Your task to perform on an android device: open the mobile data screen to see how much data has been used Image 0: 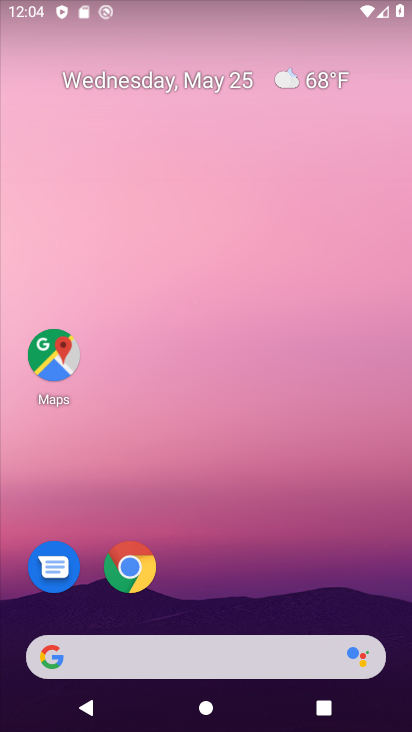
Step 0: drag from (182, 615) to (278, 165)
Your task to perform on an android device: open the mobile data screen to see how much data has been used Image 1: 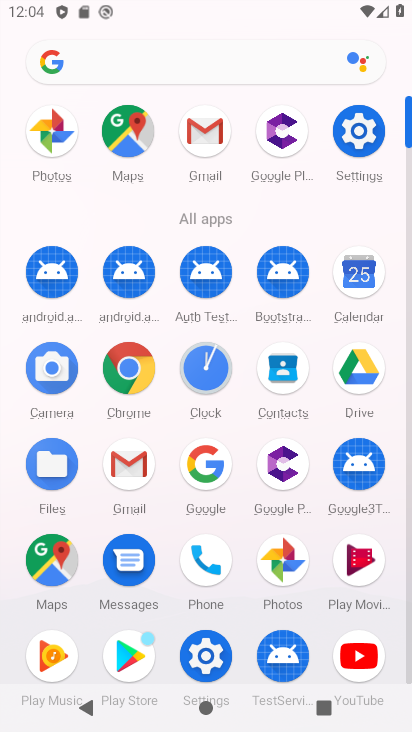
Step 1: click (205, 665)
Your task to perform on an android device: open the mobile data screen to see how much data has been used Image 2: 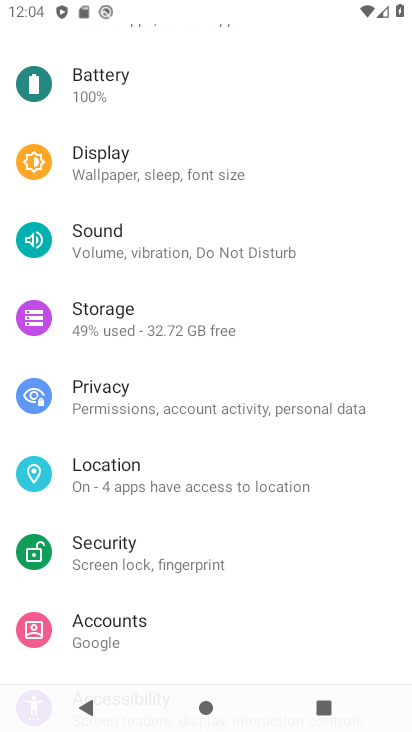
Step 2: drag from (207, 95) to (196, 685)
Your task to perform on an android device: open the mobile data screen to see how much data has been used Image 3: 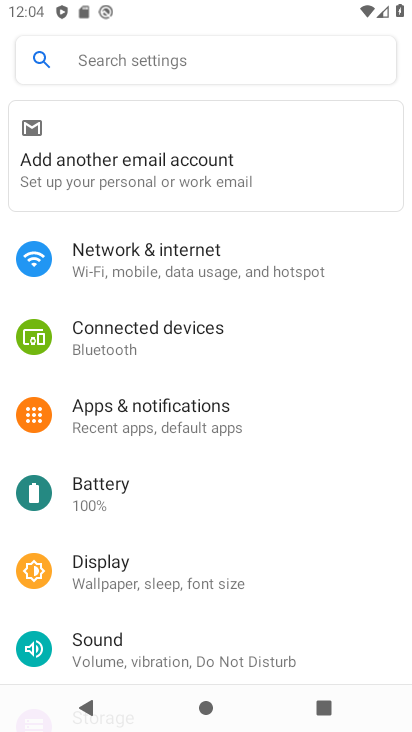
Step 3: click (202, 275)
Your task to perform on an android device: open the mobile data screen to see how much data has been used Image 4: 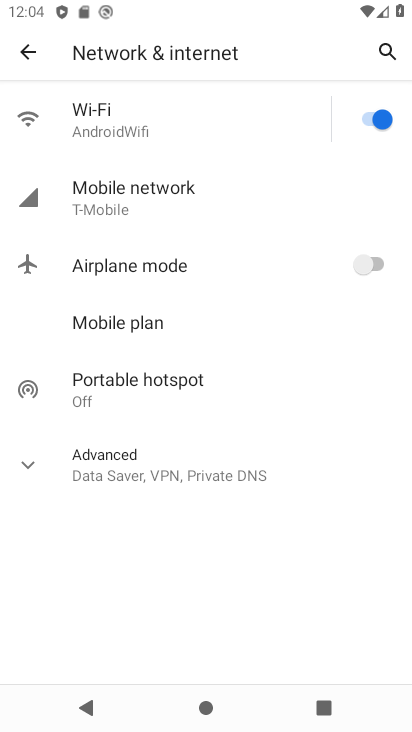
Step 4: click (184, 196)
Your task to perform on an android device: open the mobile data screen to see how much data has been used Image 5: 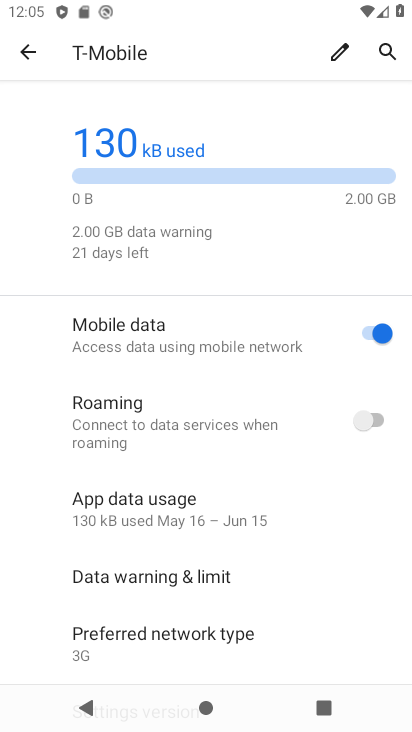
Step 5: task complete